Your task to perform on an android device: Open Android settings Image 0: 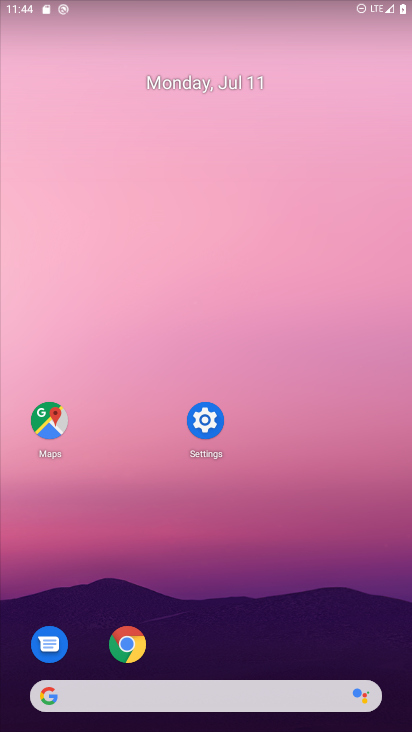
Step 0: click (200, 402)
Your task to perform on an android device: Open Android settings Image 1: 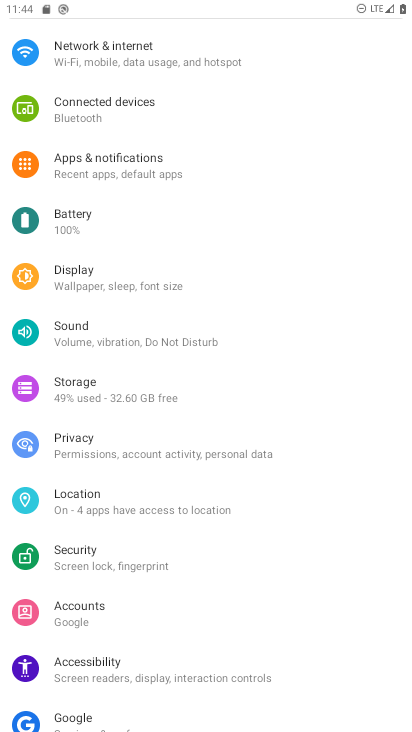
Step 1: task complete